Your task to perform on an android device: Go to Wikipedia Image 0: 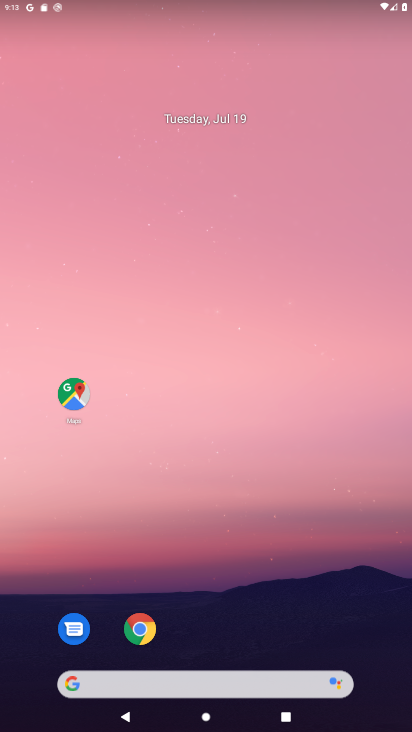
Step 0: click (135, 632)
Your task to perform on an android device: Go to Wikipedia Image 1: 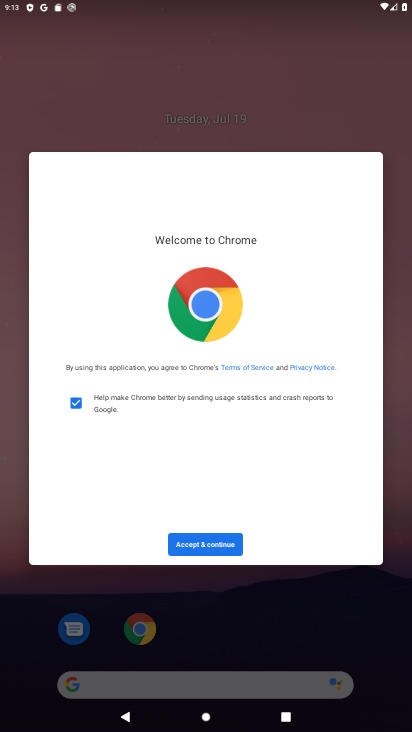
Step 1: click (223, 547)
Your task to perform on an android device: Go to Wikipedia Image 2: 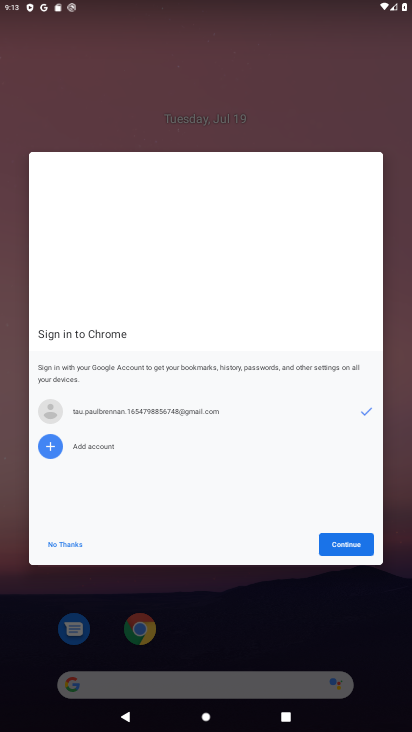
Step 2: click (344, 535)
Your task to perform on an android device: Go to Wikipedia Image 3: 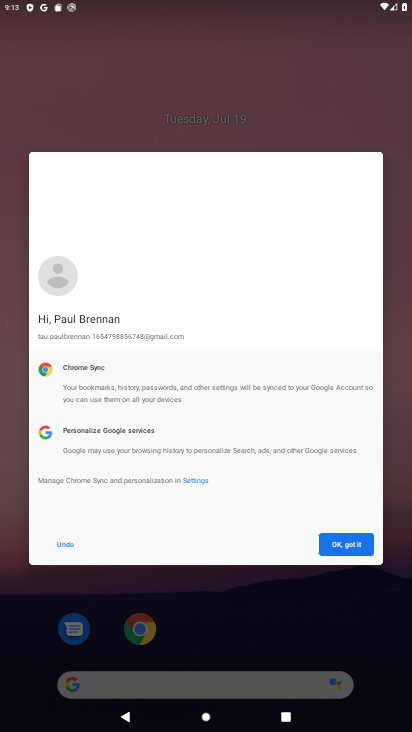
Step 3: click (344, 535)
Your task to perform on an android device: Go to Wikipedia Image 4: 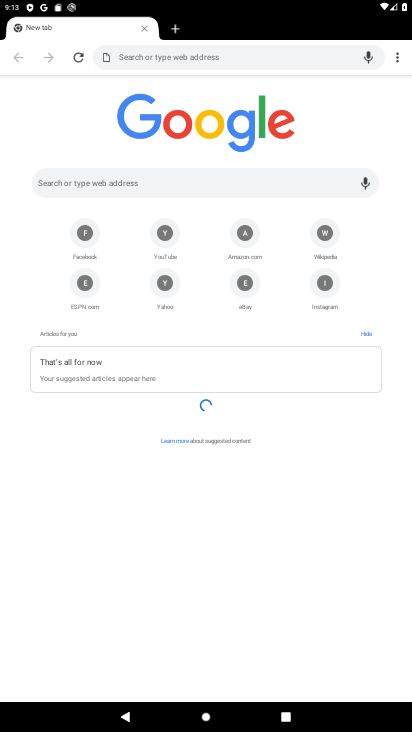
Step 4: click (328, 237)
Your task to perform on an android device: Go to Wikipedia Image 5: 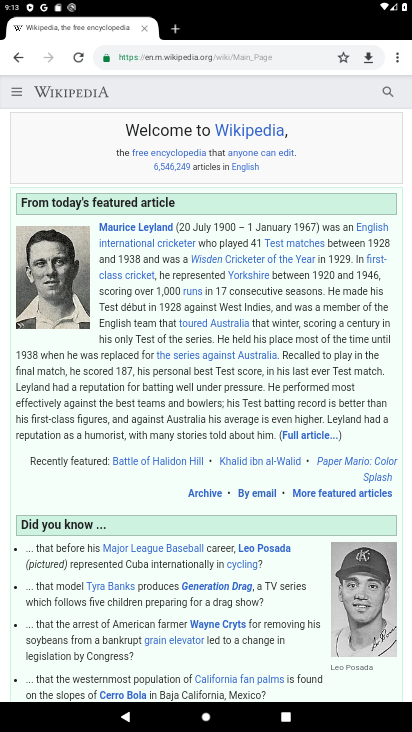
Step 5: task complete